Your task to perform on an android device: toggle improve location accuracy Image 0: 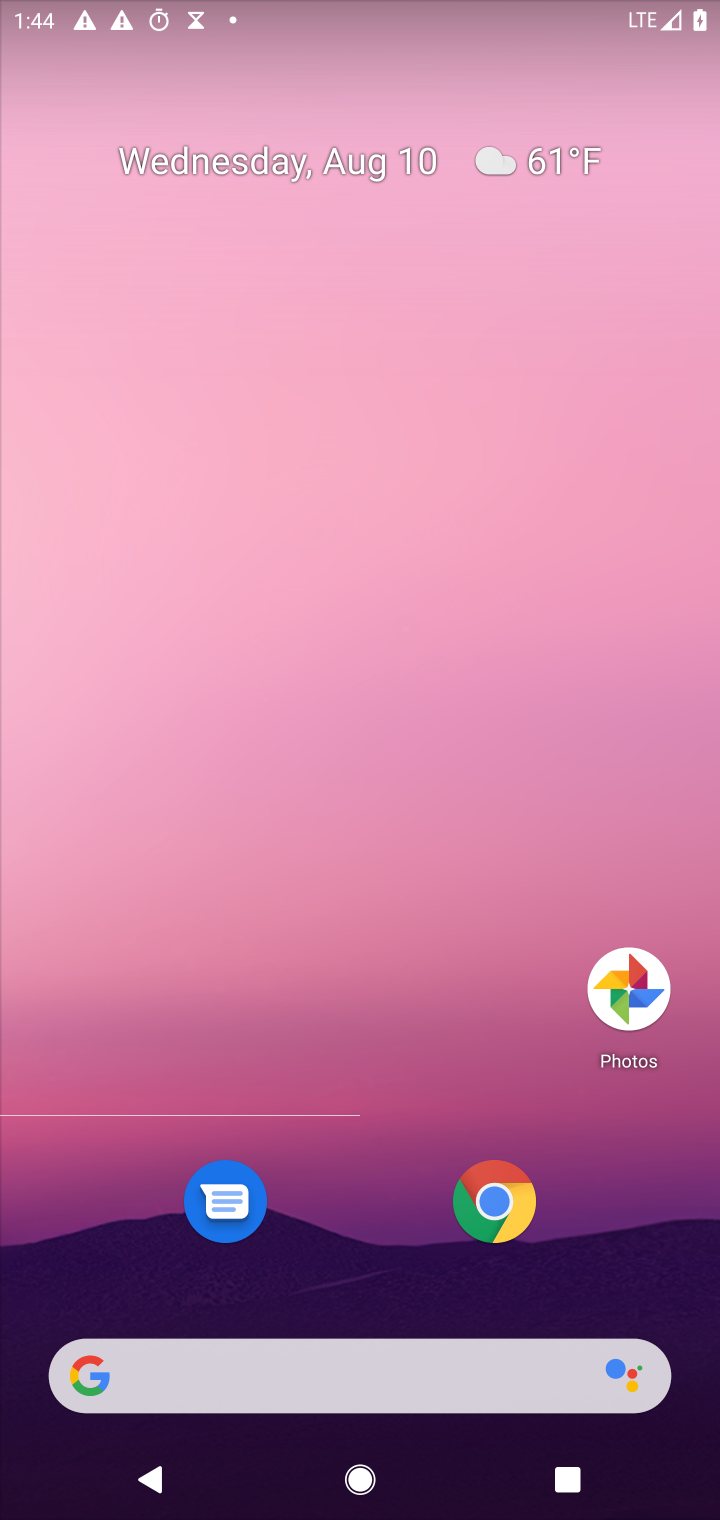
Step 0: press home button
Your task to perform on an android device: toggle improve location accuracy Image 1: 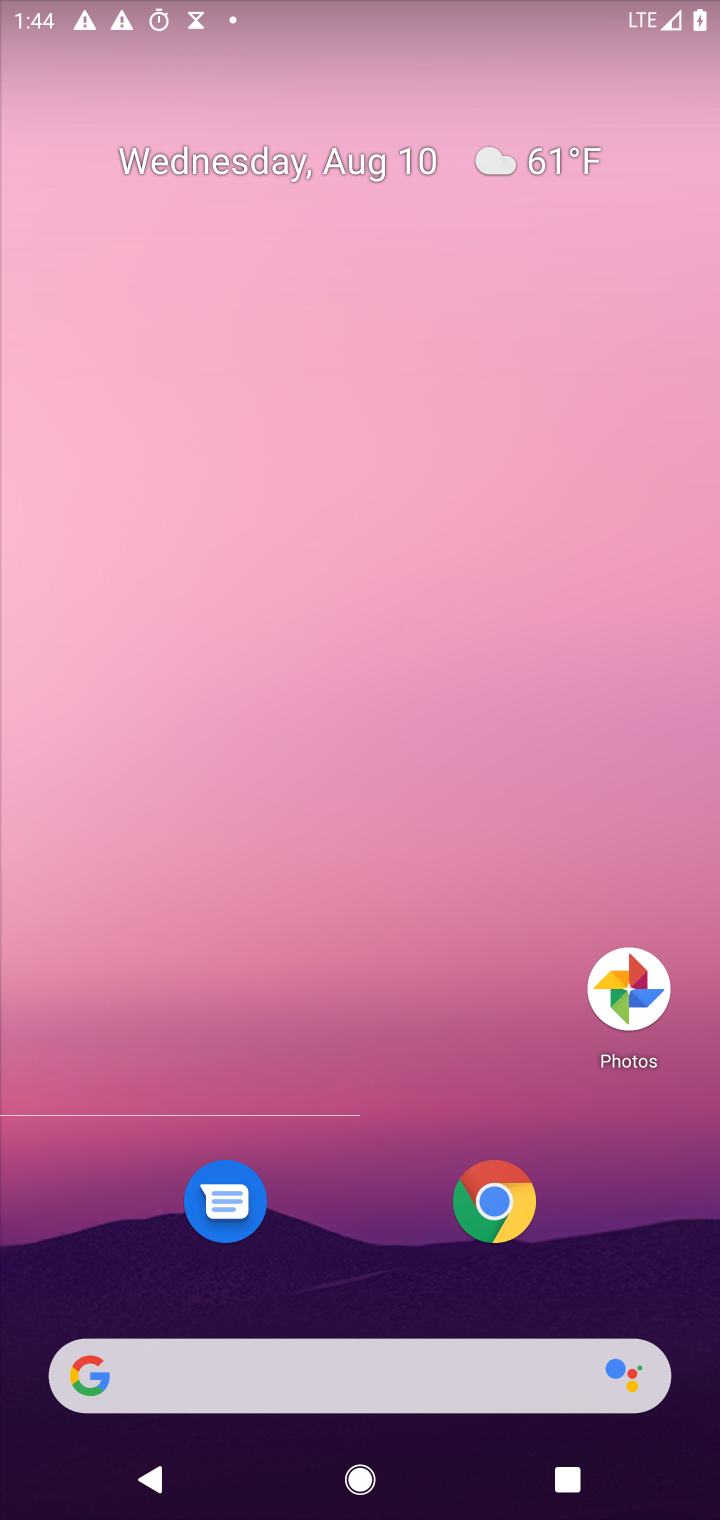
Step 1: drag from (409, 1281) to (296, 325)
Your task to perform on an android device: toggle improve location accuracy Image 2: 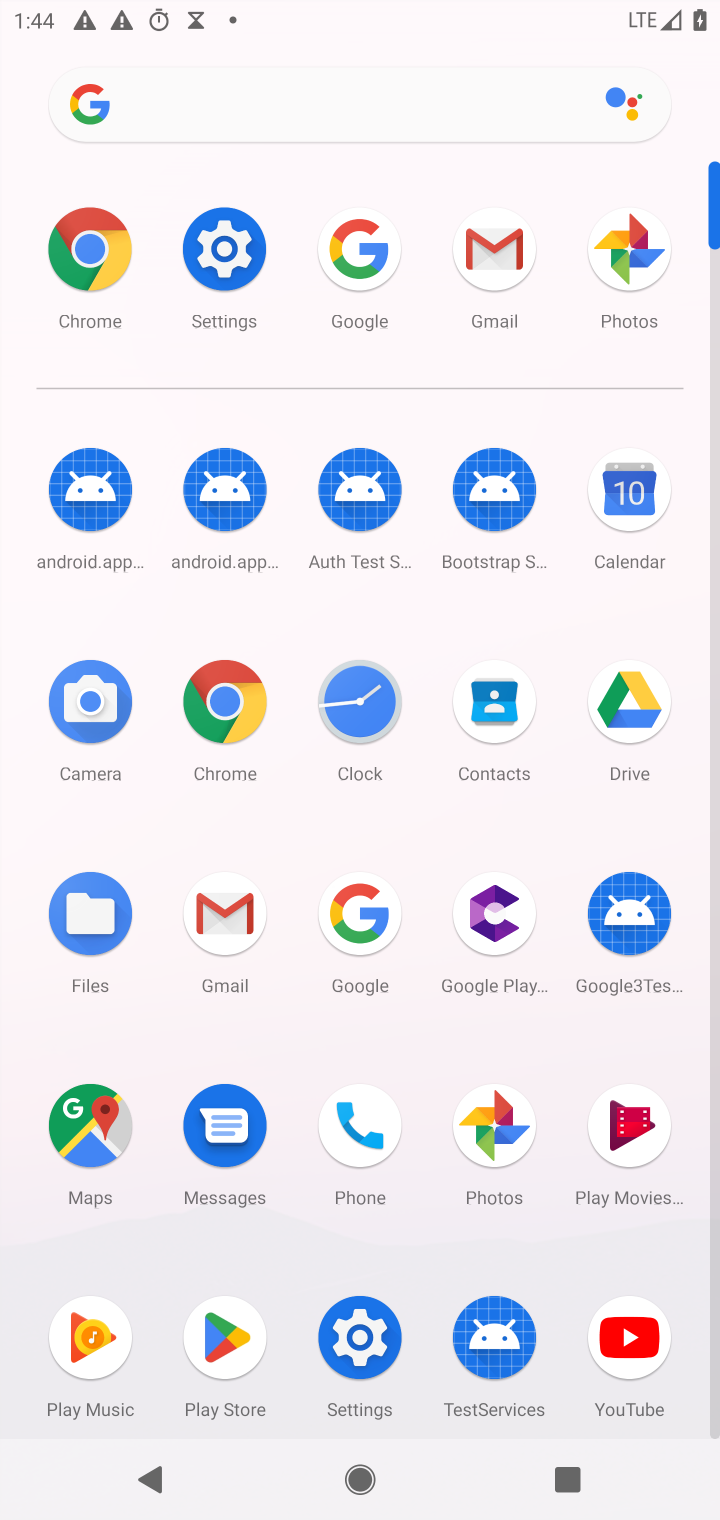
Step 2: click (212, 247)
Your task to perform on an android device: toggle improve location accuracy Image 3: 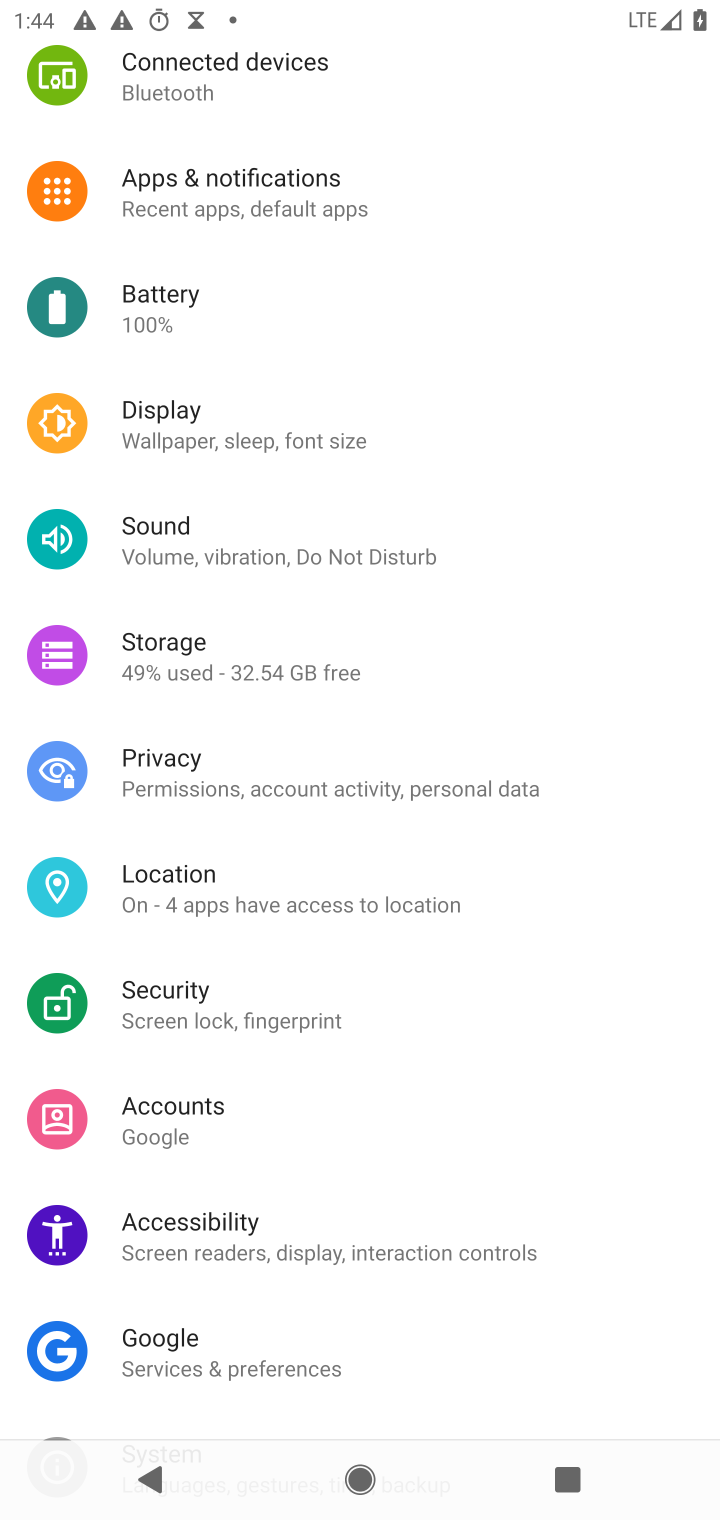
Step 3: click (151, 893)
Your task to perform on an android device: toggle improve location accuracy Image 4: 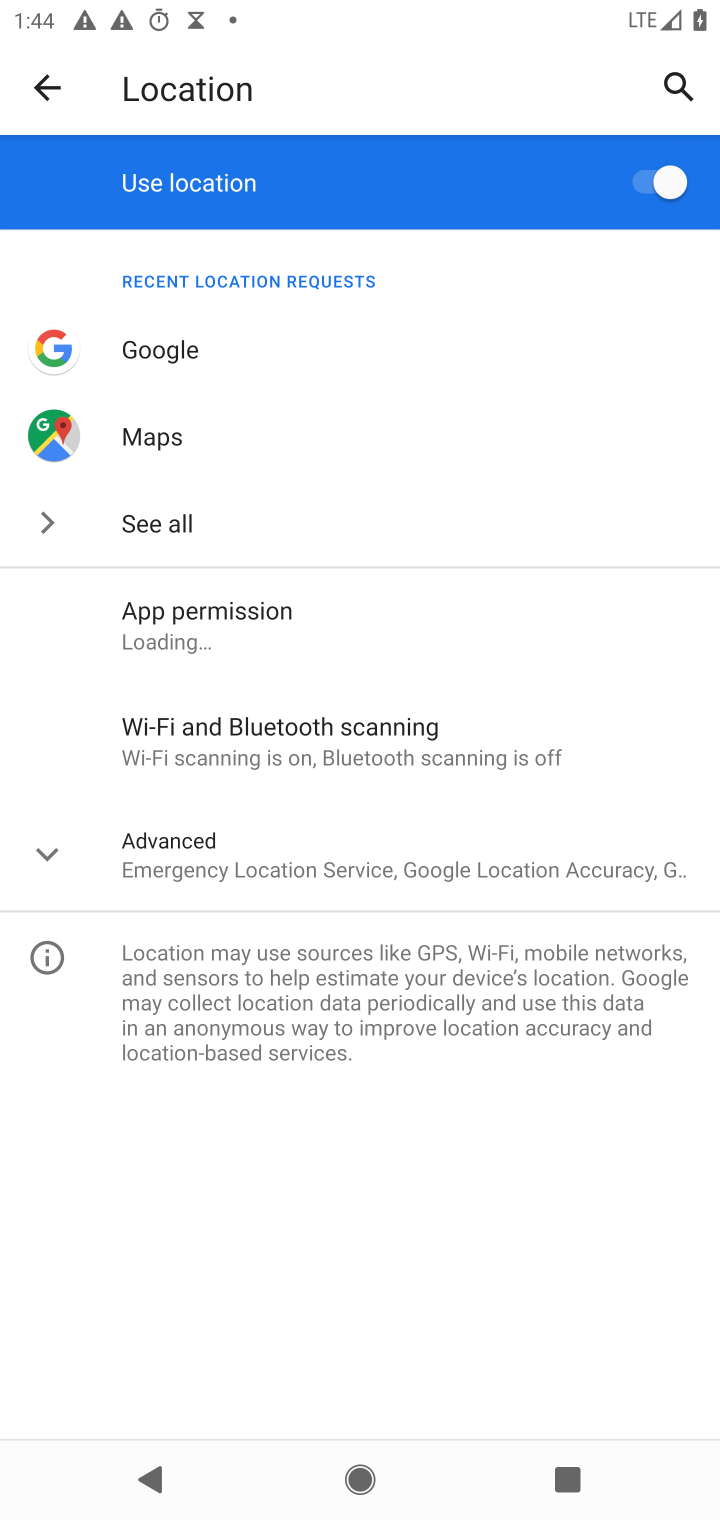
Step 4: click (161, 847)
Your task to perform on an android device: toggle improve location accuracy Image 5: 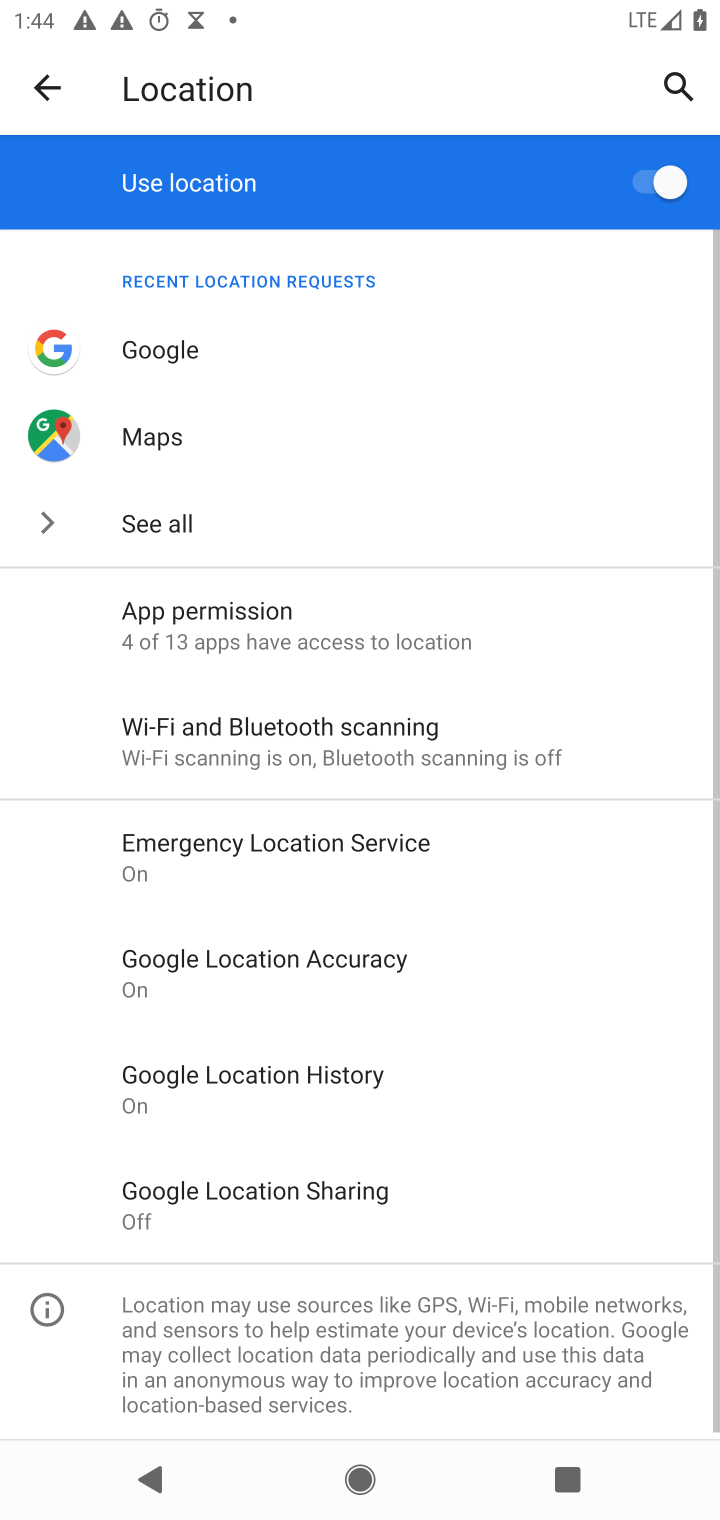
Step 5: click (280, 948)
Your task to perform on an android device: toggle improve location accuracy Image 6: 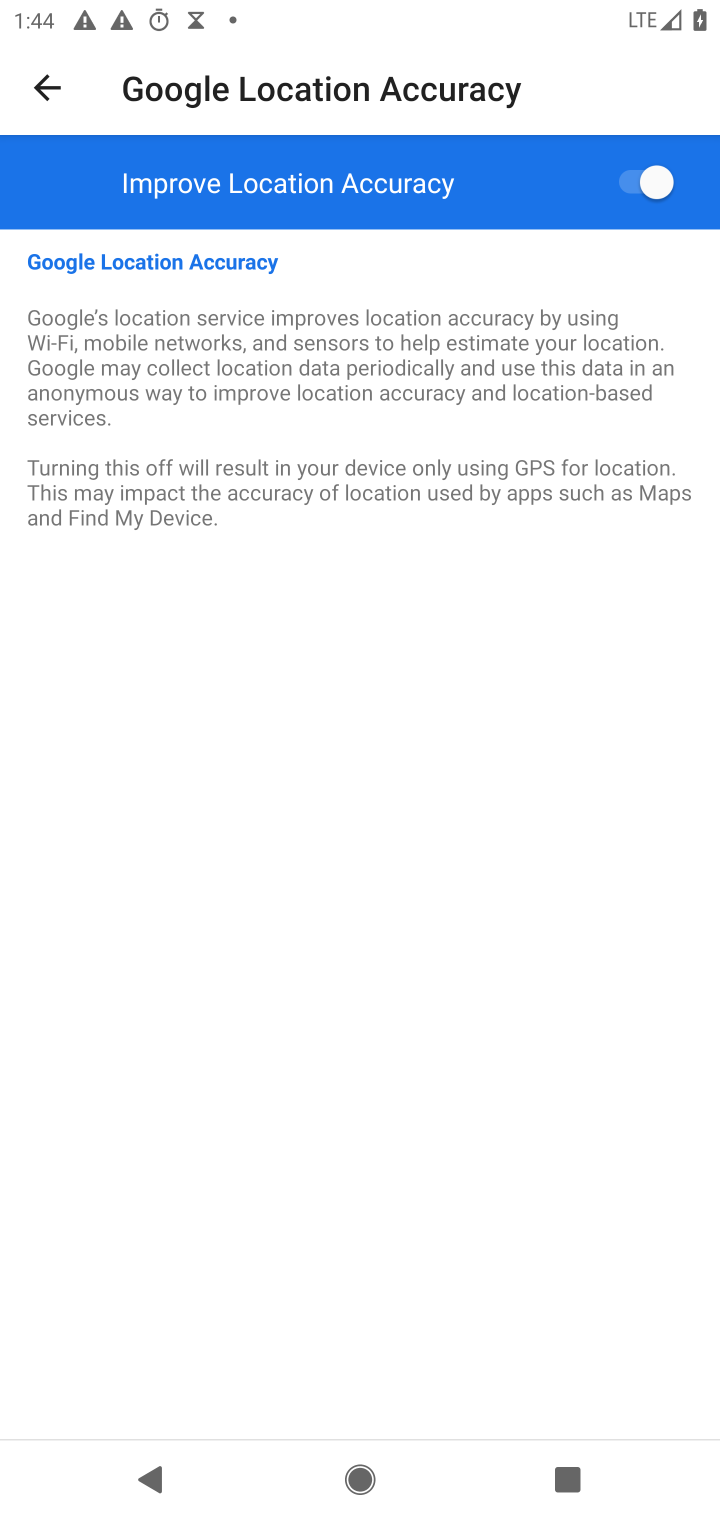
Step 6: click (645, 202)
Your task to perform on an android device: toggle improve location accuracy Image 7: 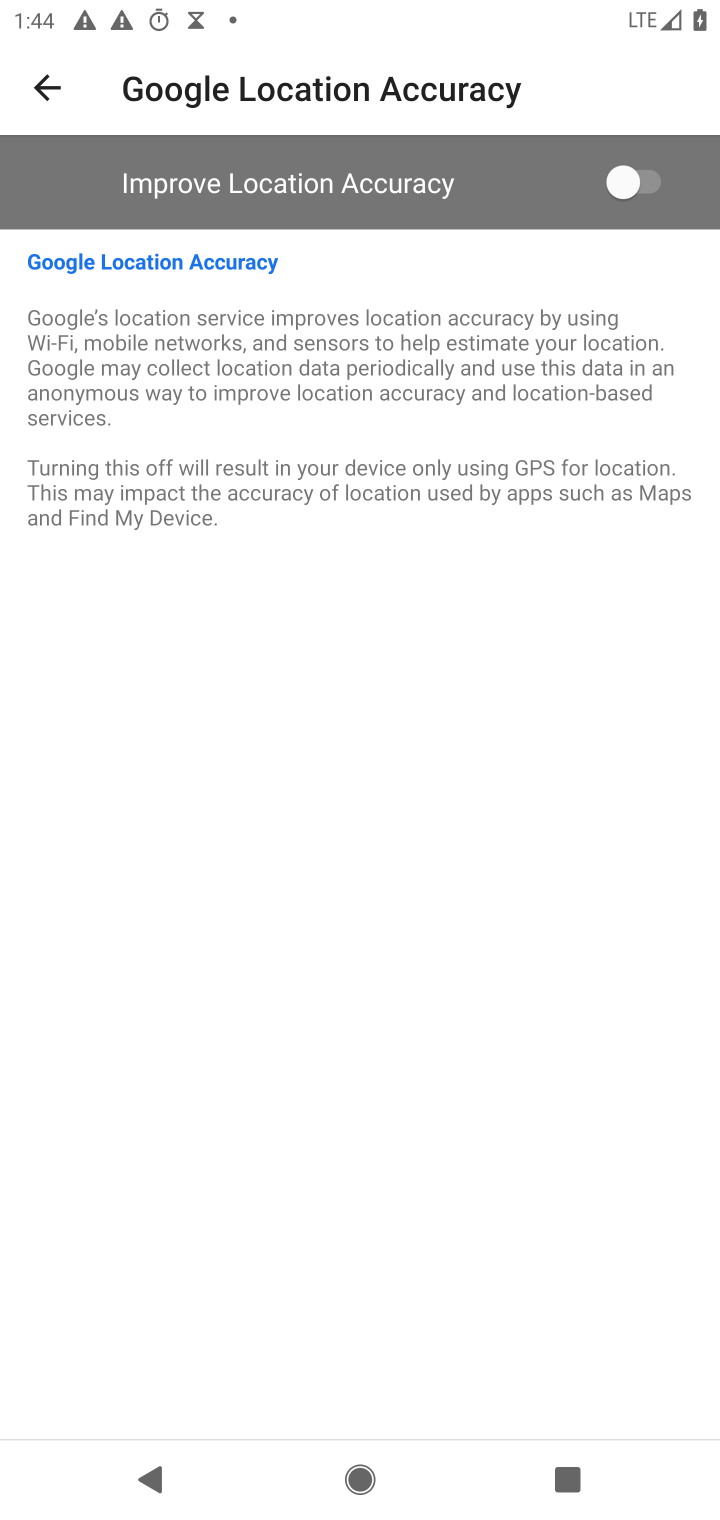
Step 7: task complete